Your task to perform on an android device: Search for the best coffee tables on Crate & Barrel Image 0: 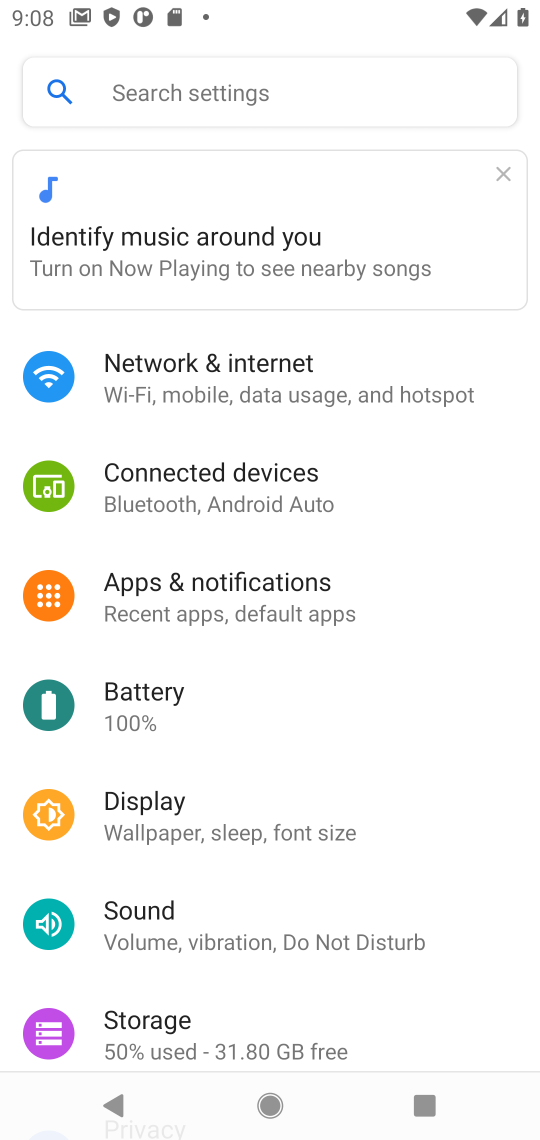
Step 0: press home button
Your task to perform on an android device: Search for the best coffee tables on Crate & Barrel Image 1: 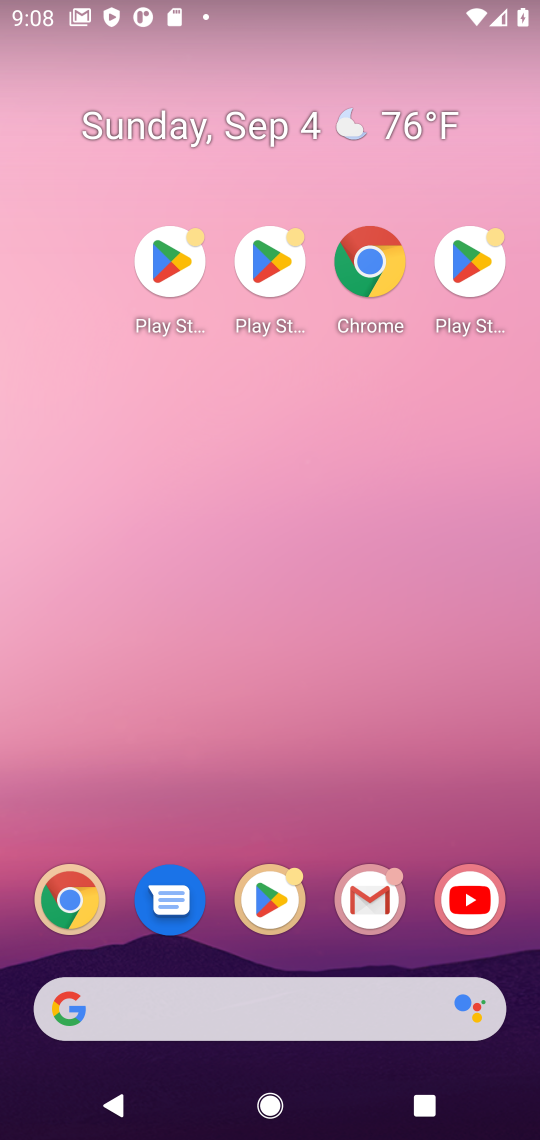
Step 1: drag from (236, 378) to (194, 94)
Your task to perform on an android device: Search for the best coffee tables on Crate & Barrel Image 2: 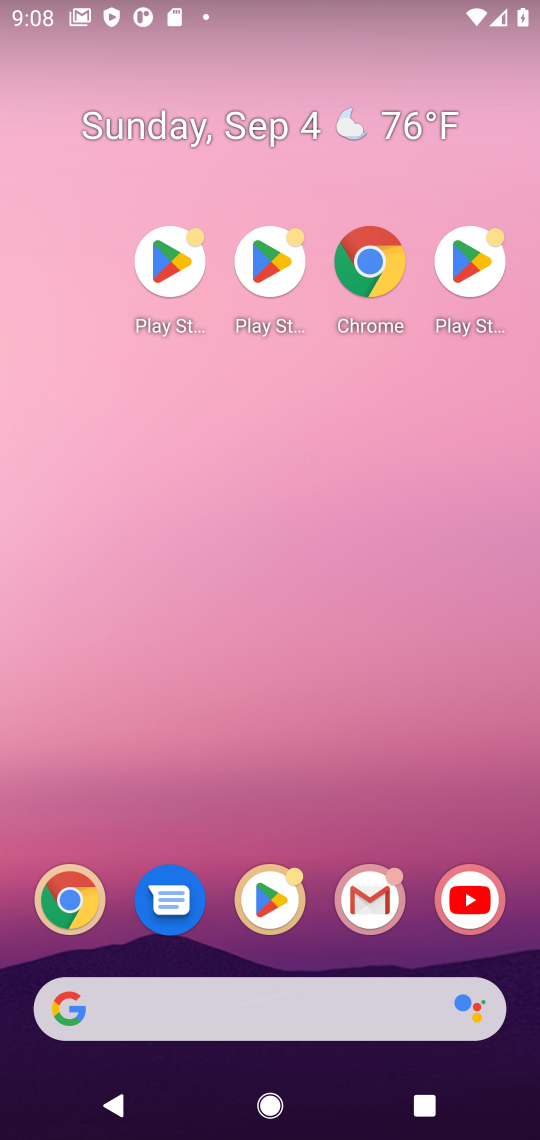
Step 2: drag from (221, 757) to (188, 125)
Your task to perform on an android device: Search for the best coffee tables on Crate & Barrel Image 3: 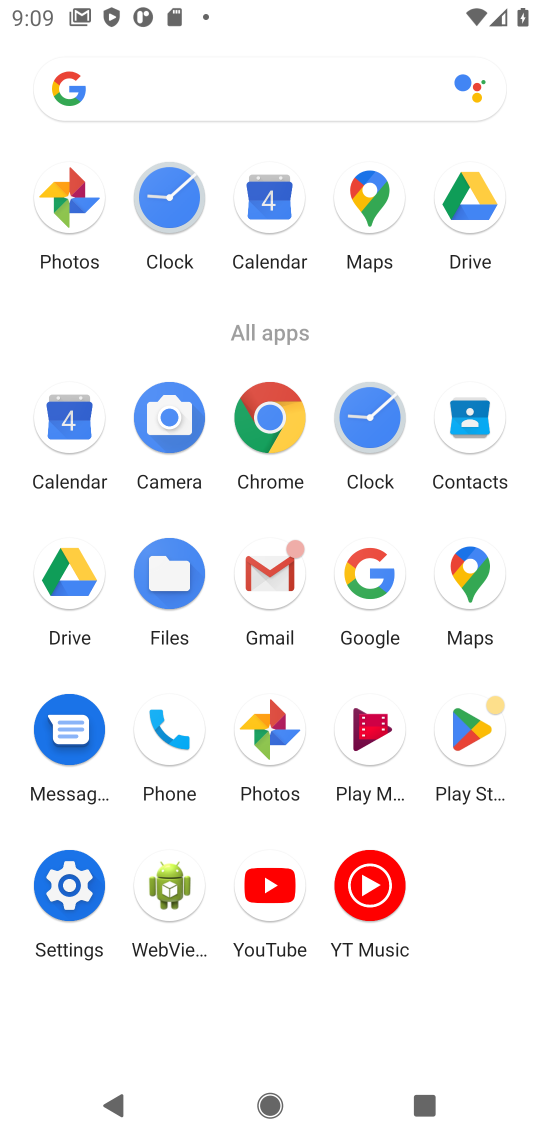
Step 3: click (232, 395)
Your task to perform on an android device: Search for the best coffee tables on Crate & Barrel Image 4: 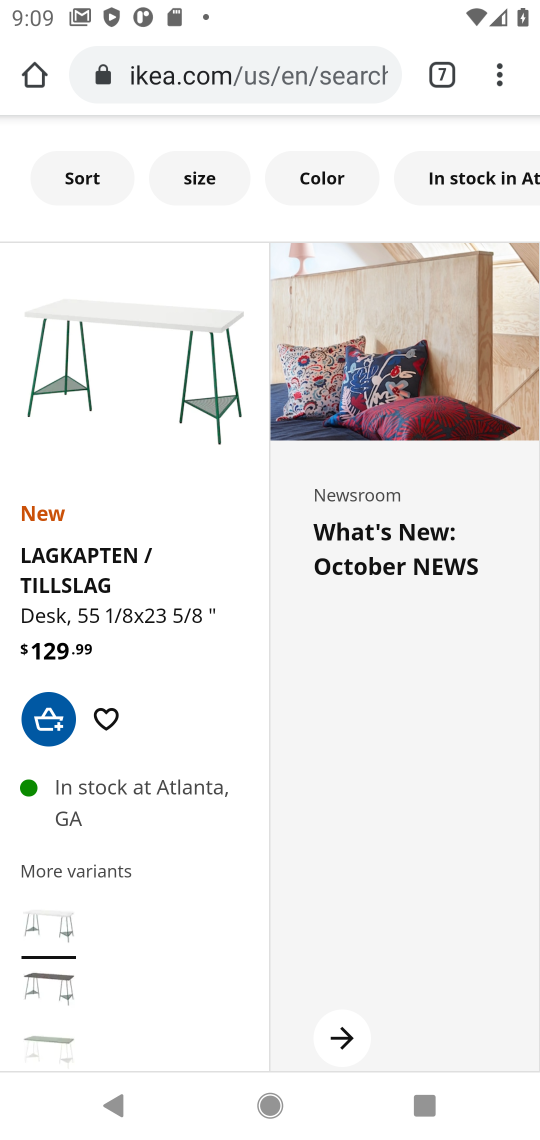
Step 4: click (316, 808)
Your task to perform on an android device: Search for the best coffee tables on Crate & Barrel Image 5: 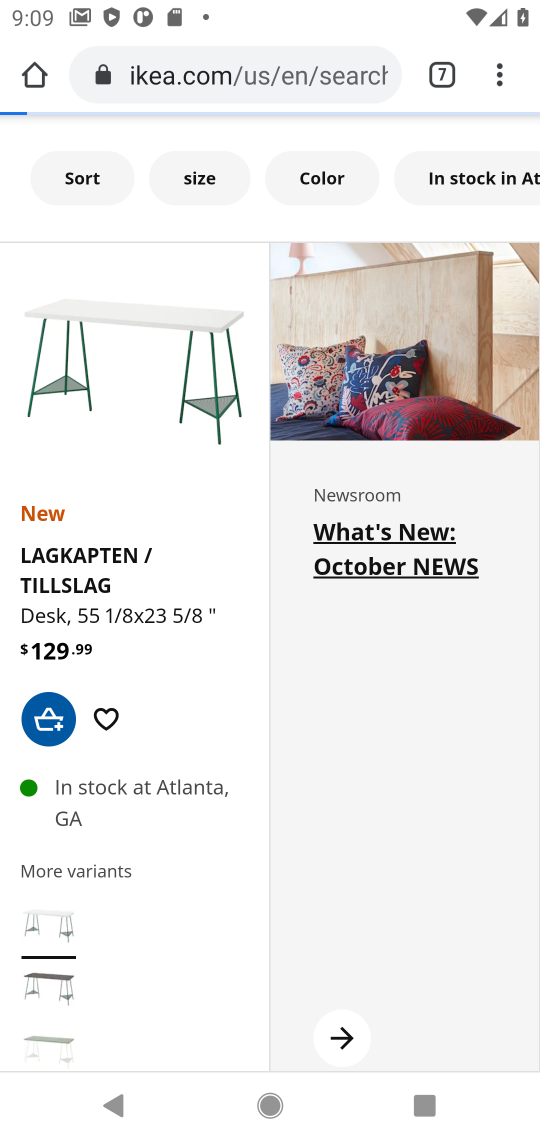
Step 5: click (426, 85)
Your task to perform on an android device: Search for the best coffee tables on Crate & Barrel Image 6: 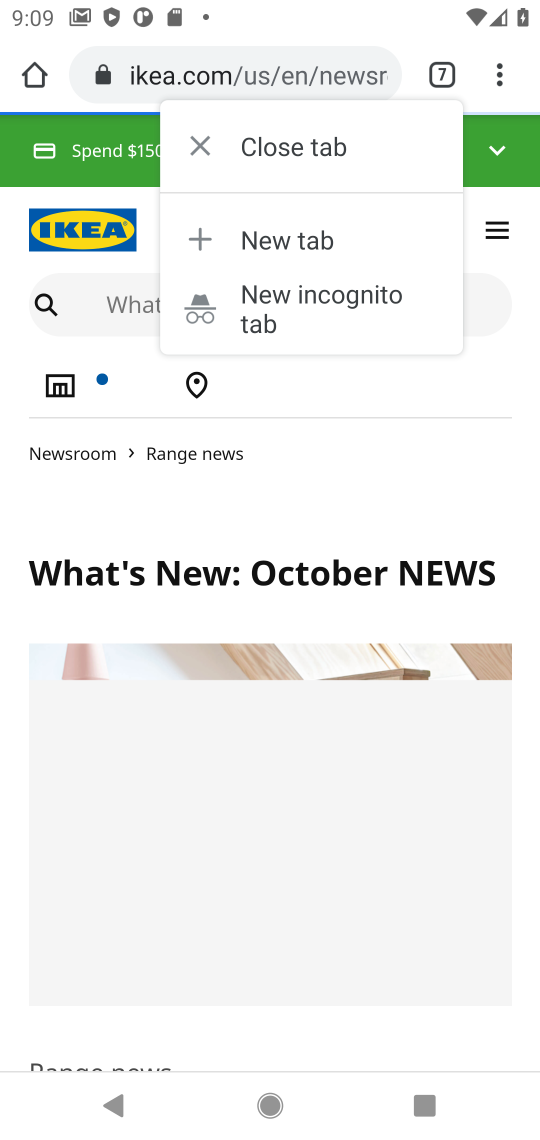
Step 6: click (306, 129)
Your task to perform on an android device: Search for the best coffee tables on Crate & Barrel Image 7: 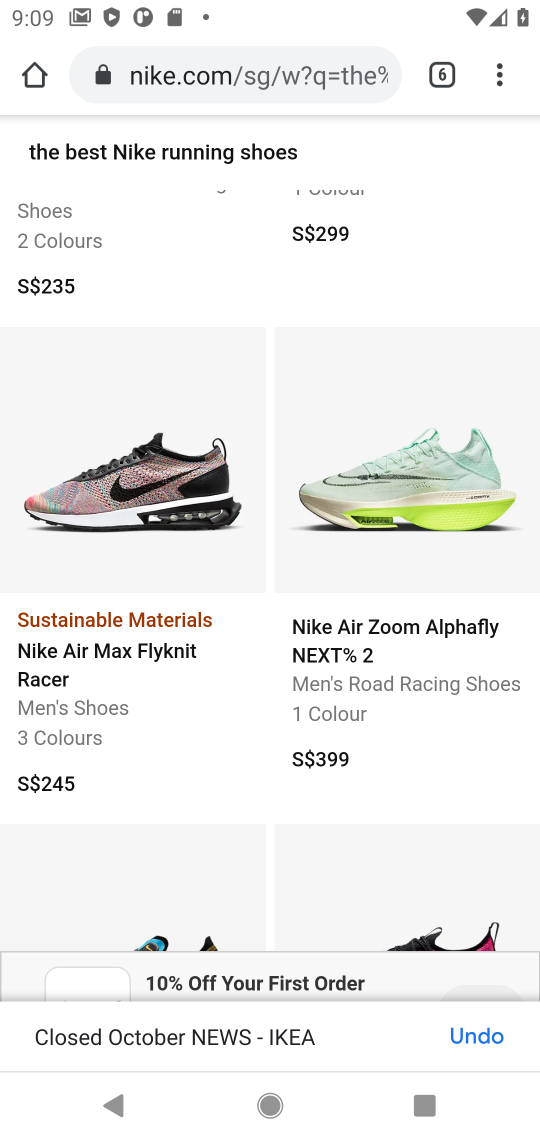
Step 7: click (23, 70)
Your task to perform on an android device: Search for the best coffee tables on Crate & Barrel Image 8: 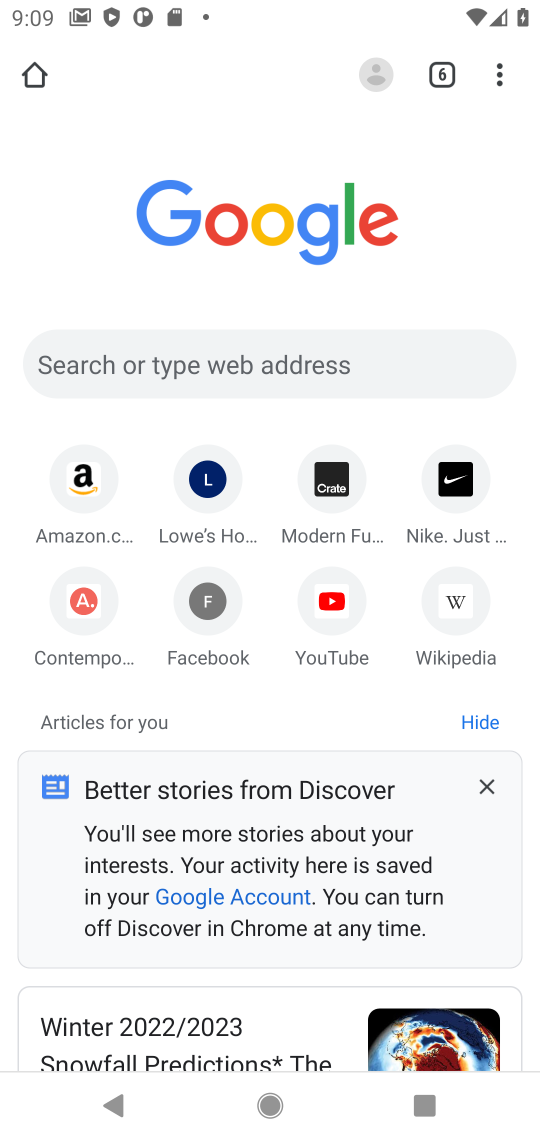
Step 8: click (180, 386)
Your task to perform on an android device: Search for the best coffee tables on Crate & Barrel Image 9: 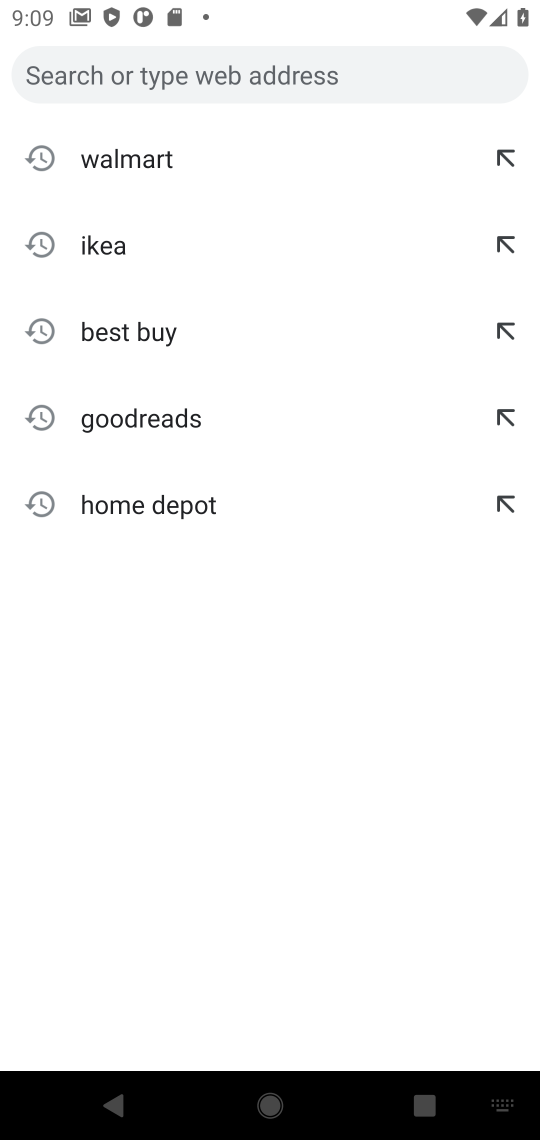
Step 9: type "Crate & Barrel"
Your task to perform on an android device: Search for the best coffee tables on Crate & Barrel Image 10: 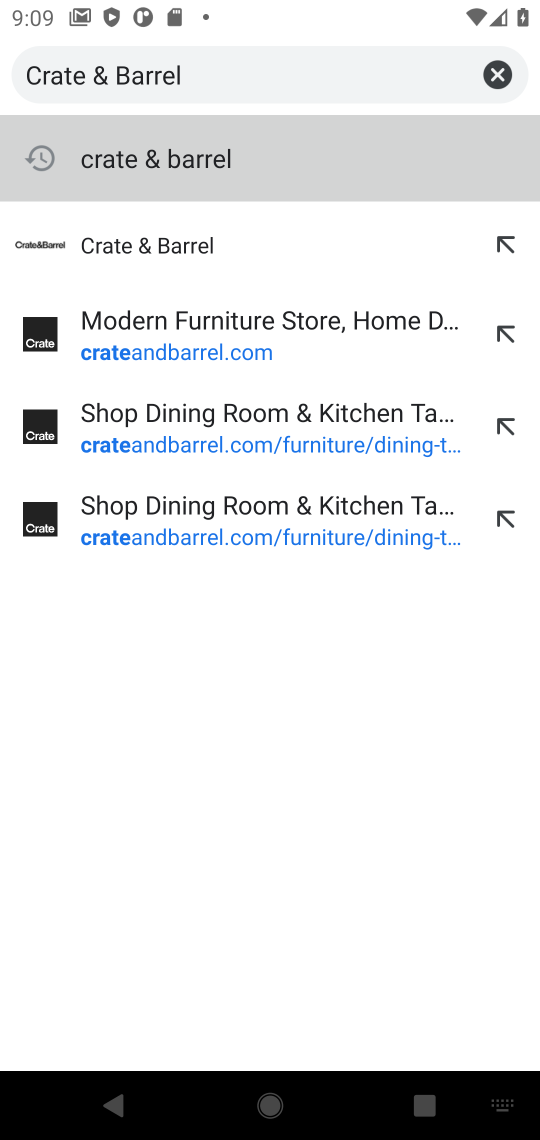
Step 10: type ""
Your task to perform on an android device: Search for the best coffee tables on Crate & Barrel Image 11: 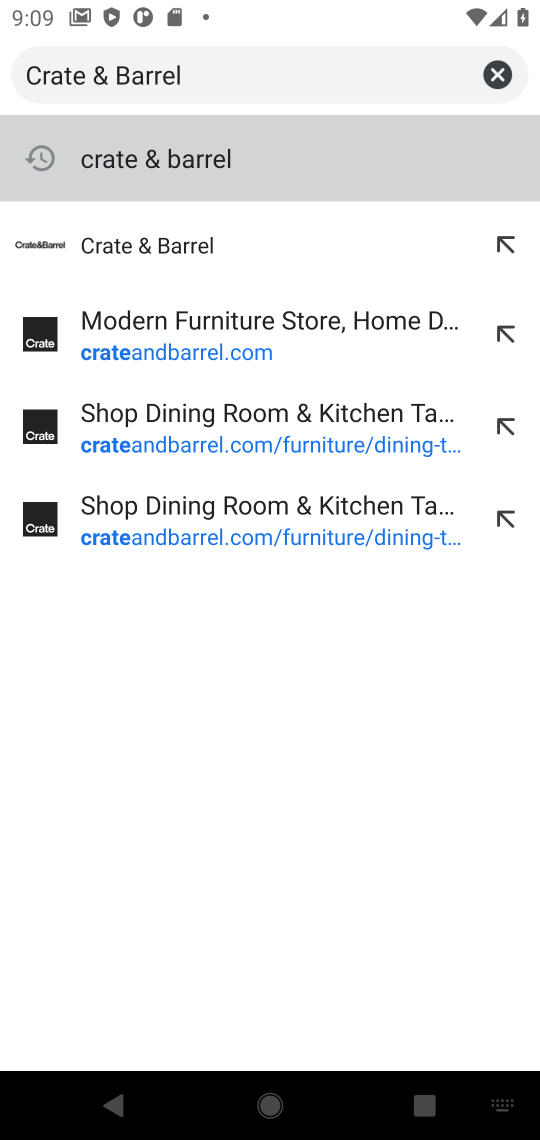
Step 11: click (223, 167)
Your task to perform on an android device: Search for the best coffee tables on Crate & Barrel Image 12: 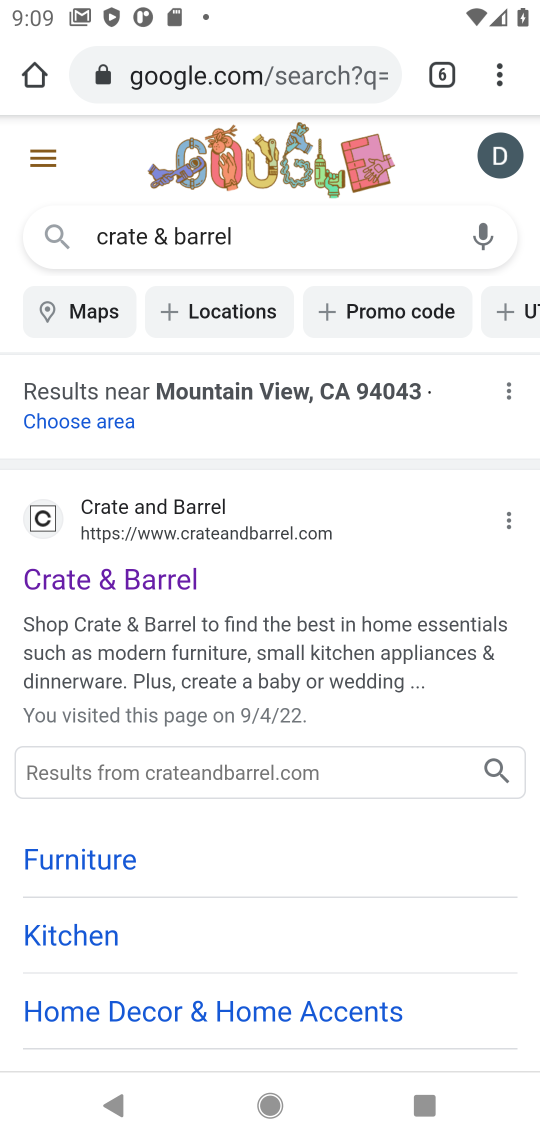
Step 12: click (140, 579)
Your task to perform on an android device: Search for the best coffee tables on Crate & Barrel Image 13: 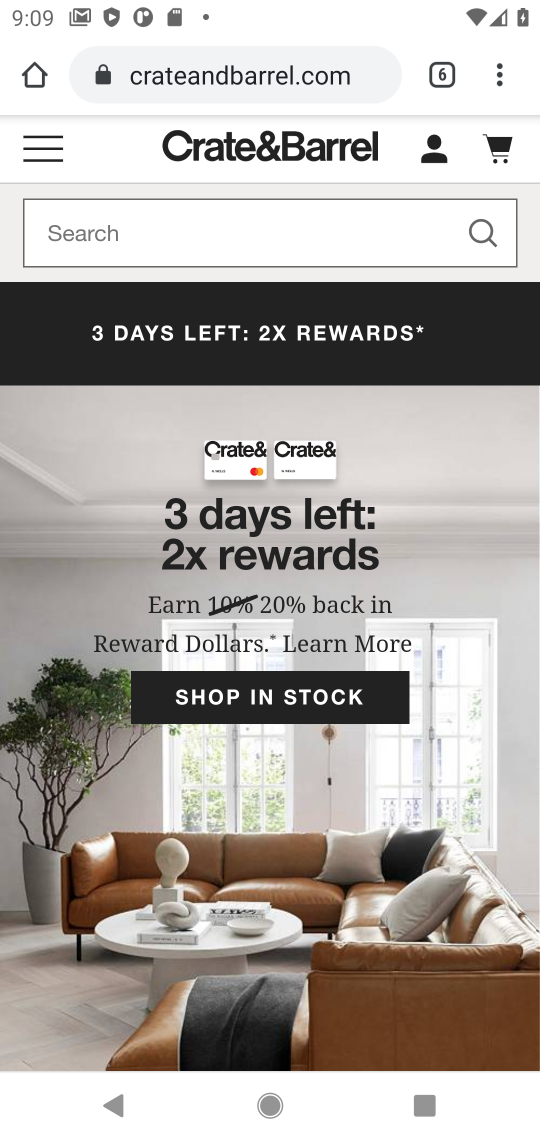
Step 13: click (209, 210)
Your task to perform on an android device: Search for the best coffee tables on Crate & Barrel Image 14: 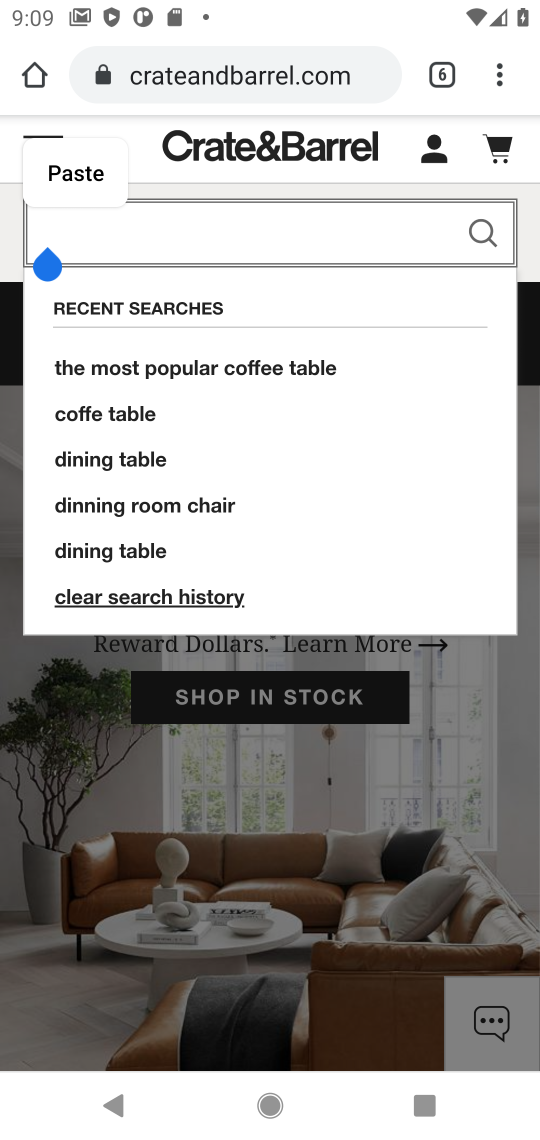
Step 14: type " the best coffee table"
Your task to perform on an android device: Search for the best coffee tables on Crate & Barrel Image 15: 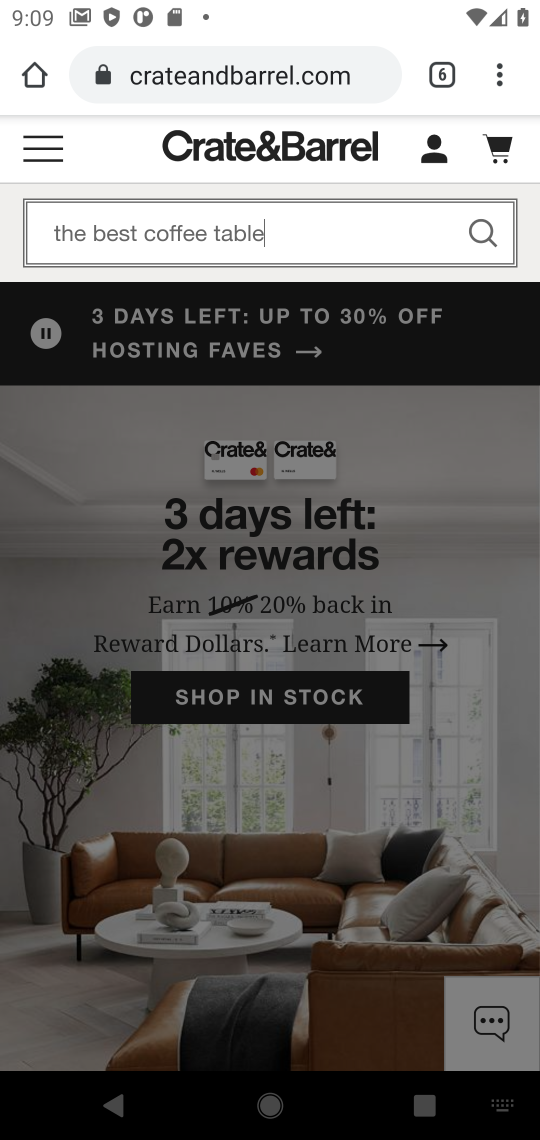
Step 15: click (467, 232)
Your task to perform on an android device: Search for the best coffee tables on Crate & Barrel Image 16: 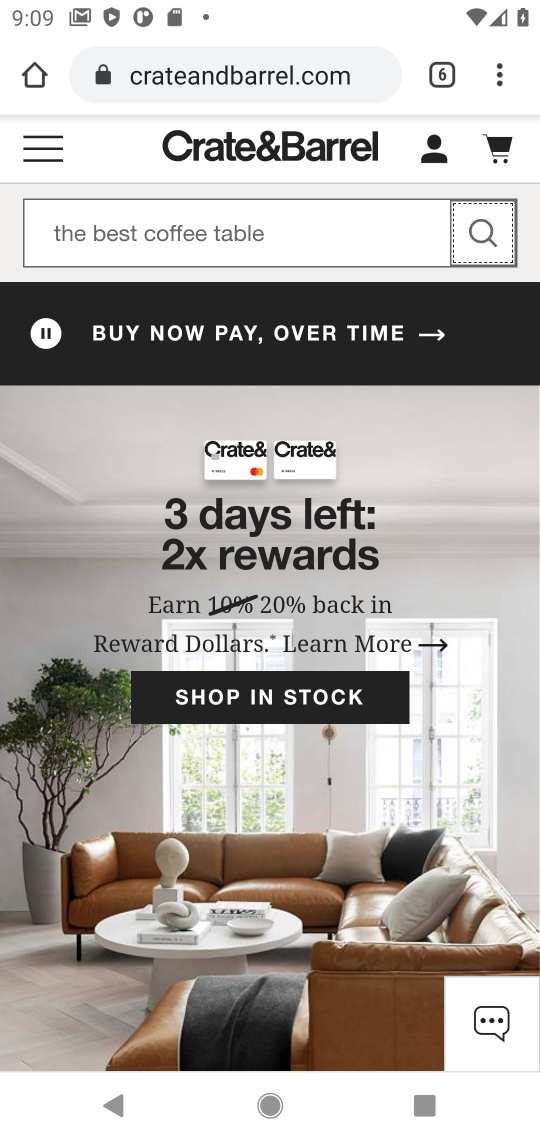
Step 16: click (468, 232)
Your task to perform on an android device: Search for the best coffee tables on Crate & Barrel Image 17: 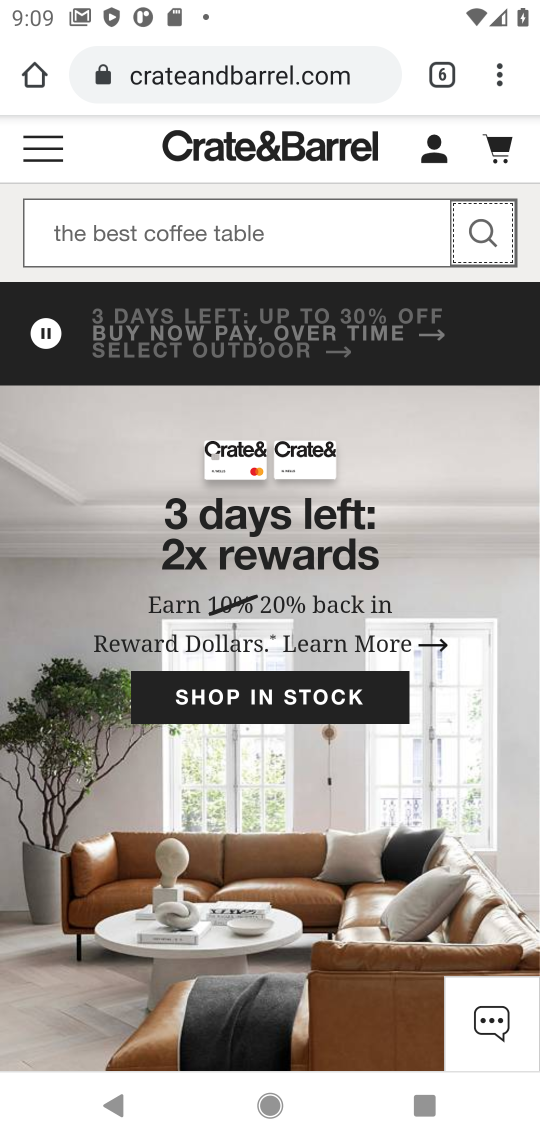
Step 17: click (488, 236)
Your task to perform on an android device: Search for the best coffee tables on Crate & Barrel Image 18: 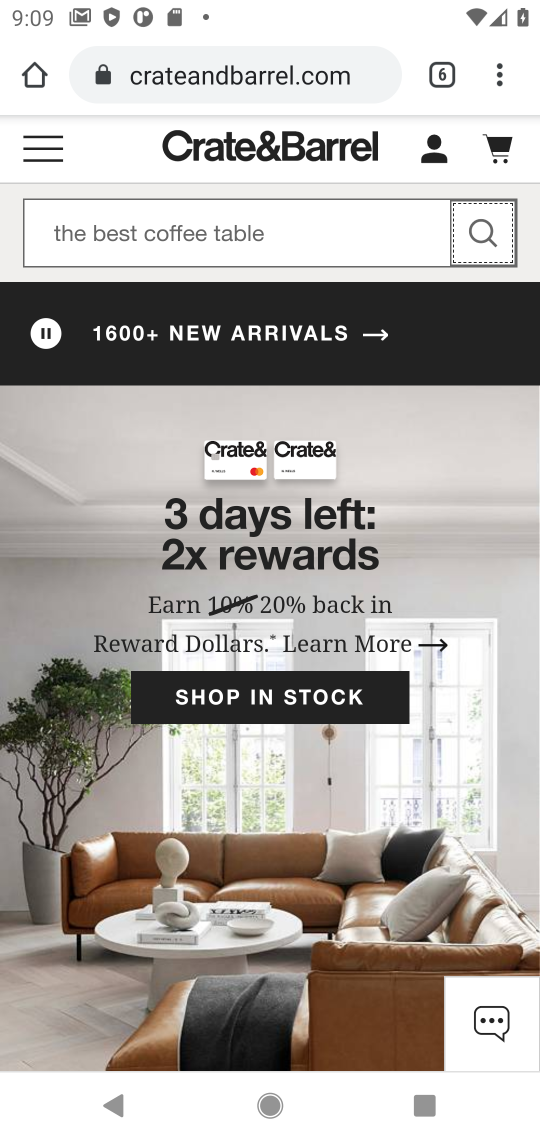
Step 18: click (478, 253)
Your task to perform on an android device: Search for the best coffee tables on Crate & Barrel Image 19: 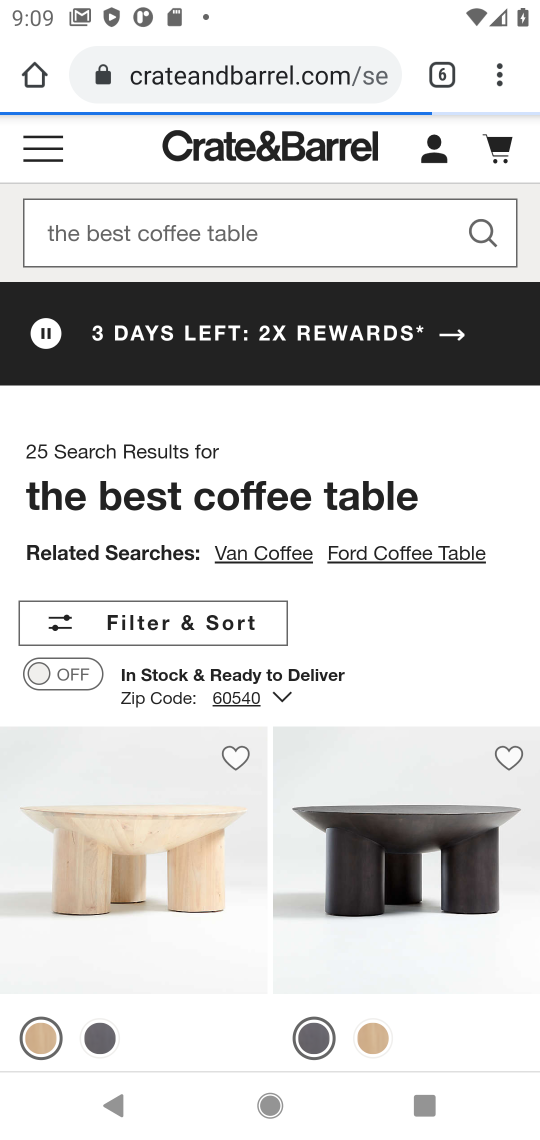
Step 19: task complete